Your task to perform on an android device: check out phone information Image 0: 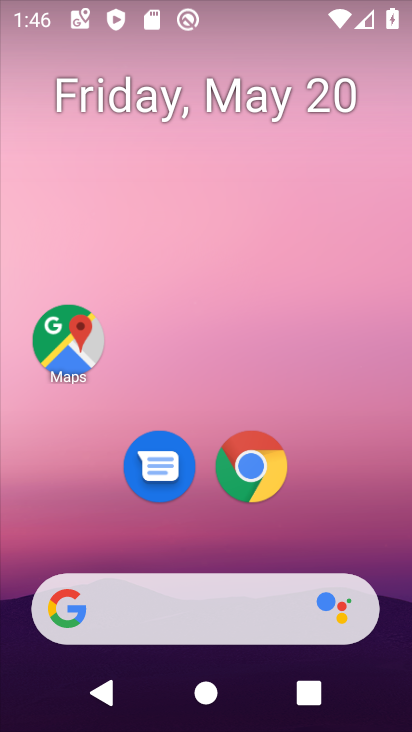
Step 0: drag from (200, 539) to (147, 3)
Your task to perform on an android device: check out phone information Image 1: 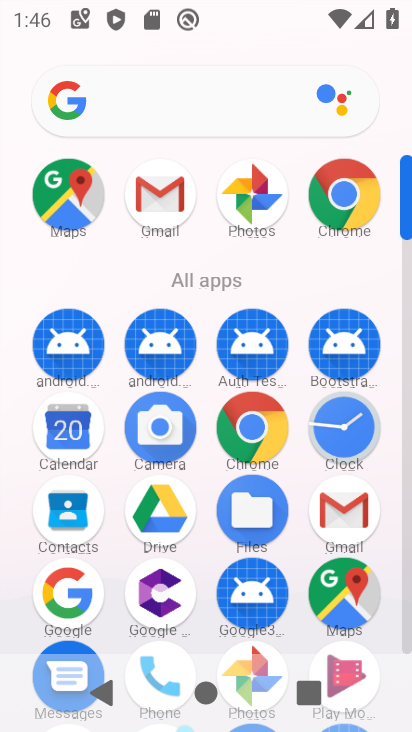
Step 1: drag from (197, 641) to (165, 73)
Your task to perform on an android device: check out phone information Image 2: 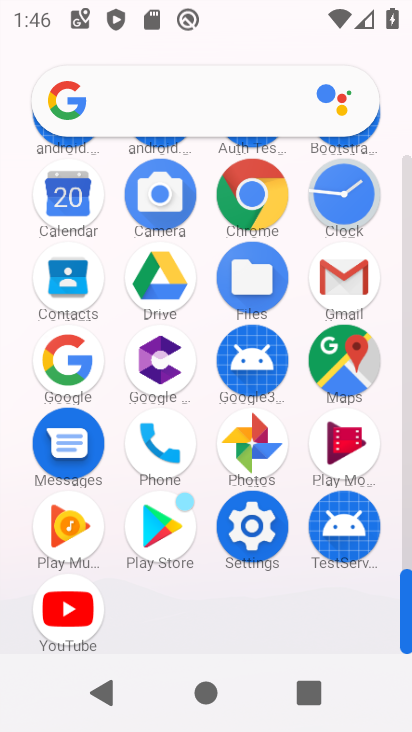
Step 2: click (260, 555)
Your task to perform on an android device: check out phone information Image 3: 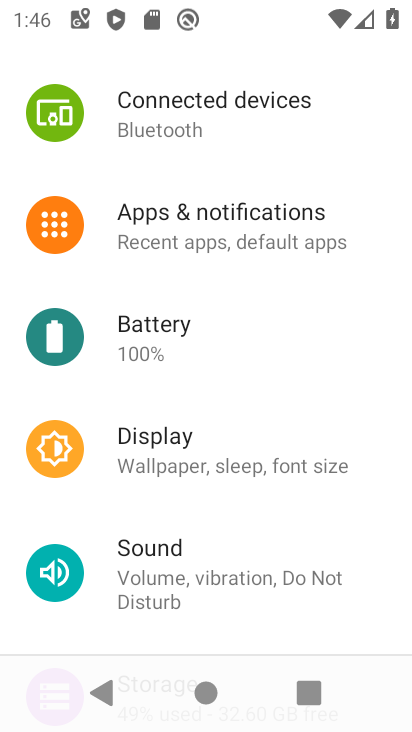
Step 3: task complete